Your task to perform on an android device: Open display settings Image 0: 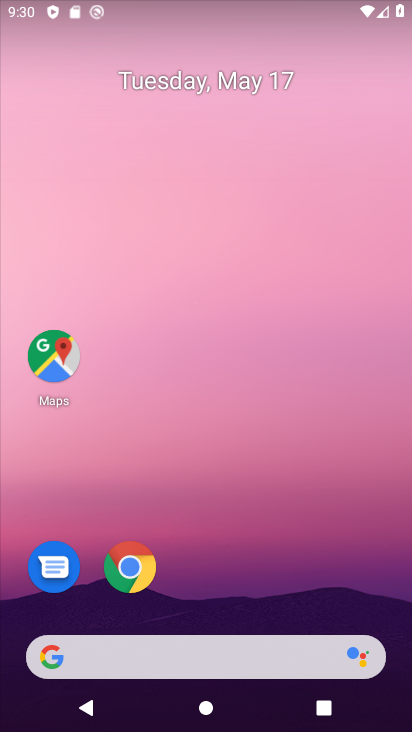
Step 0: drag from (242, 592) to (202, 202)
Your task to perform on an android device: Open display settings Image 1: 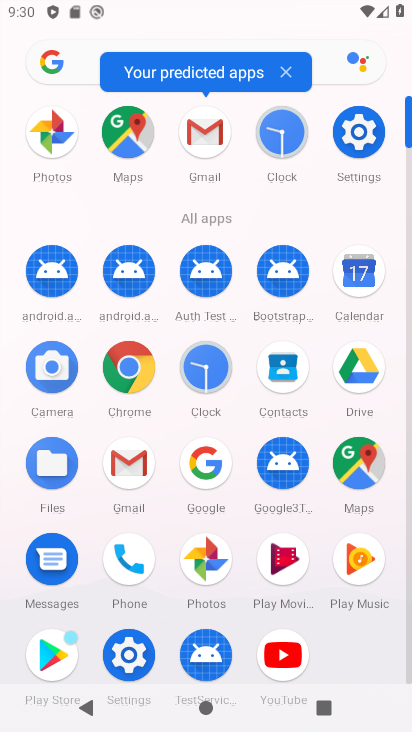
Step 1: click (359, 146)
Your task to perform on an android device: Open display settings Image 2: 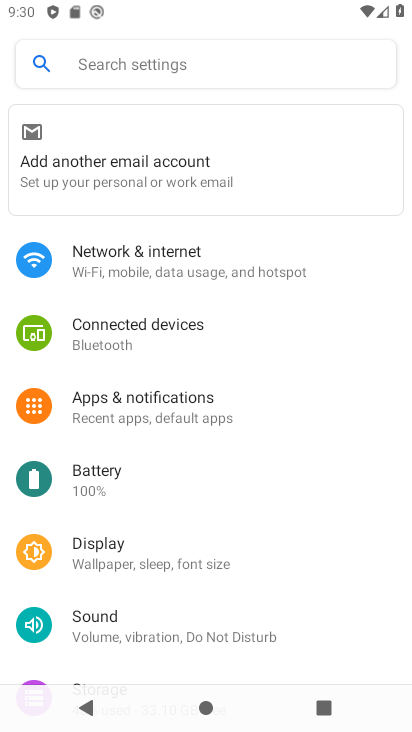
Step 2: click (134, 569)
Your task to perform on an android device: Open display settings Image 3: 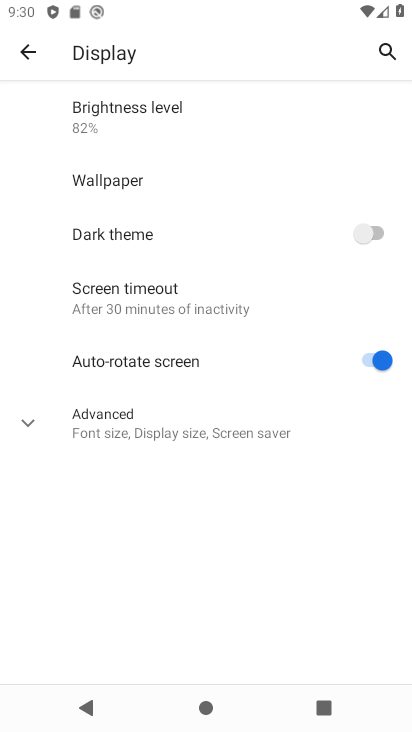
Step 3: task complete